Your task to perform on an android device: Open display settings Image 0: 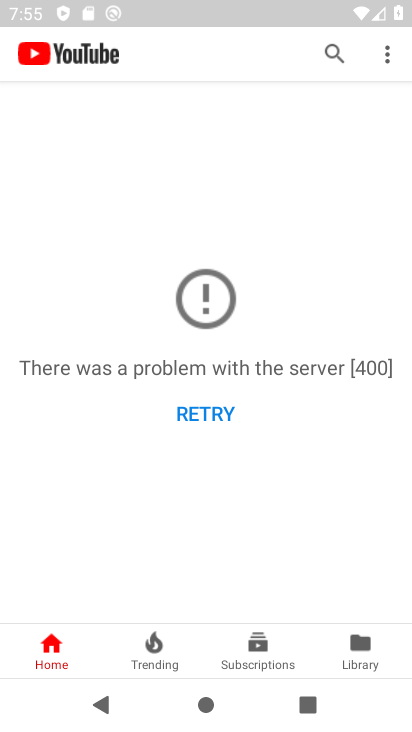
Step 0: press back button
Your task to perform on an android device: Open display settings Image 1: 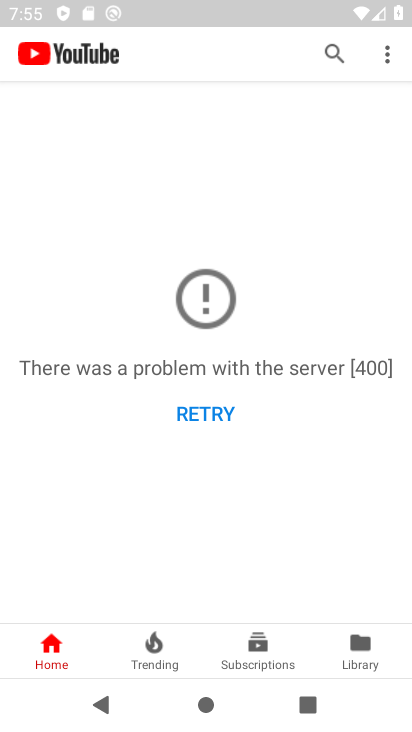
Step 1: press back button
Your task to perform on an android device: Open display settings Image 2: 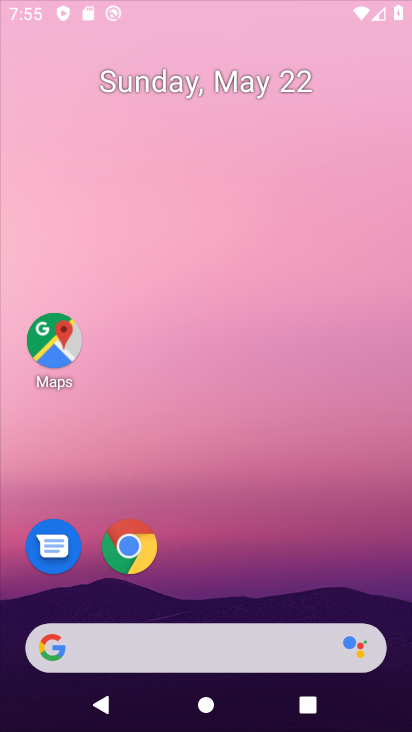
Step 2: press back button
Your task to perform on an android device: Open display settings Image 3: 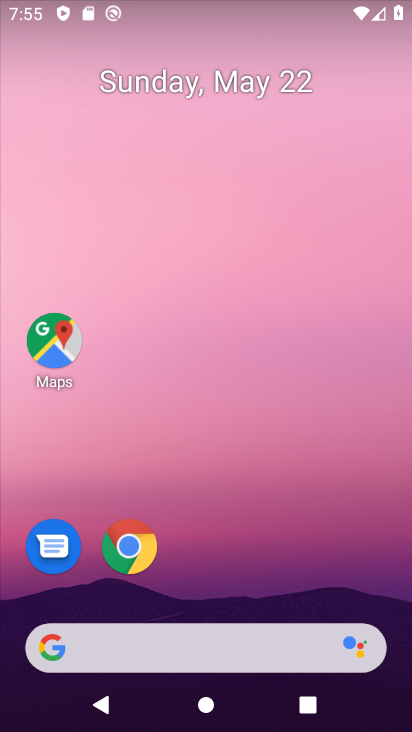
Step 3: drag from (239, 522) to (120, 10)
Your task to perform on an android device: Open display settings Image 4: 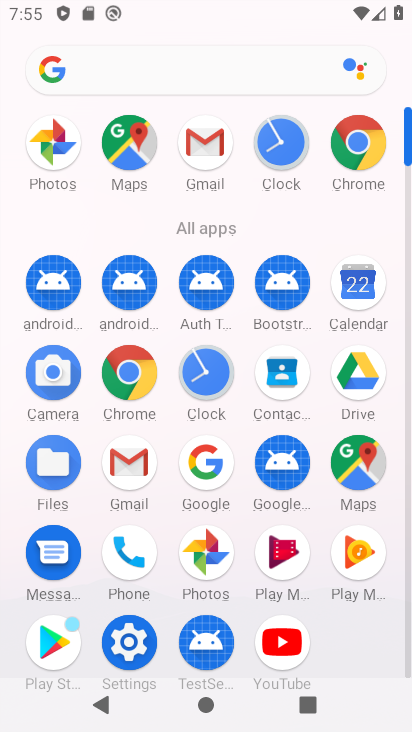
Step 4: click (126, 657)
Your task to perform on an android device: Open display settings Image 5: 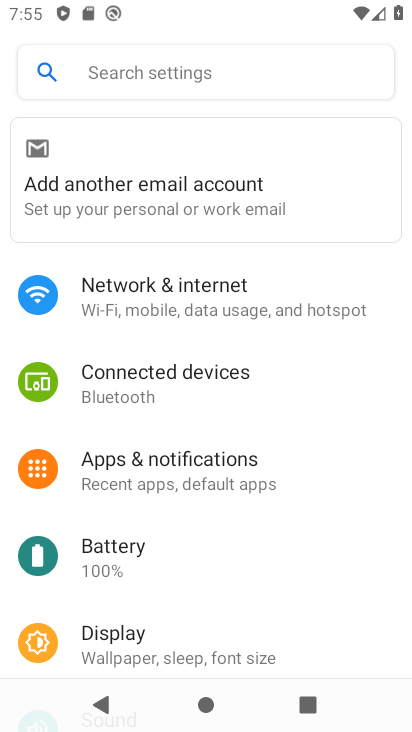
Step 5: drag from (128, 533) to (137, 254)
Your task to perform on an android device: Open display settings Image 6: 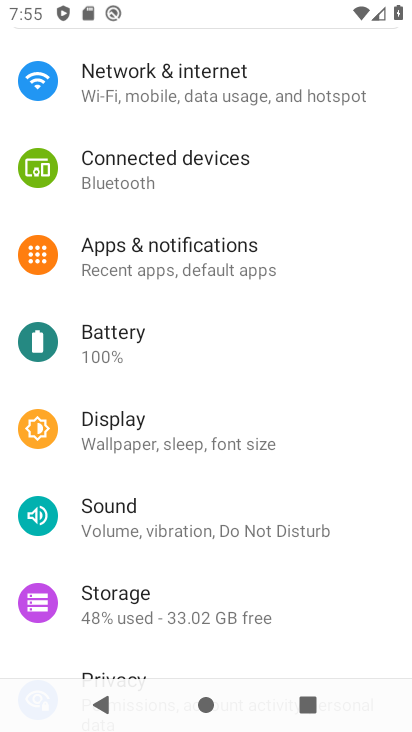
Step 6: drag from (171, 475) to (168, 310)
Your task to perform on an android device: Open display settings Image 7: 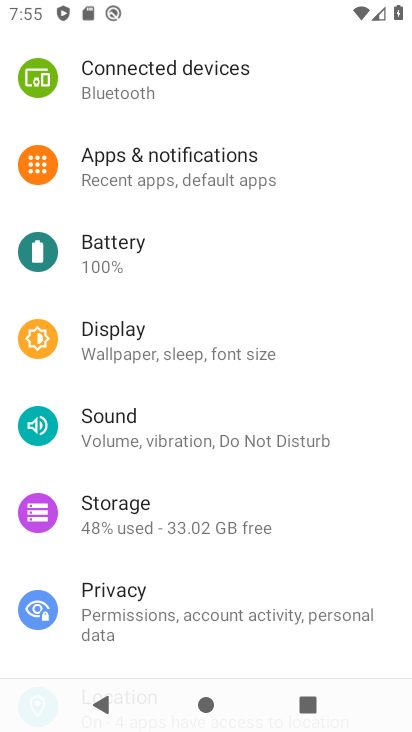
Step 7: click (127, 352)
Your task to perform on an android device: Open display settings Image 8: 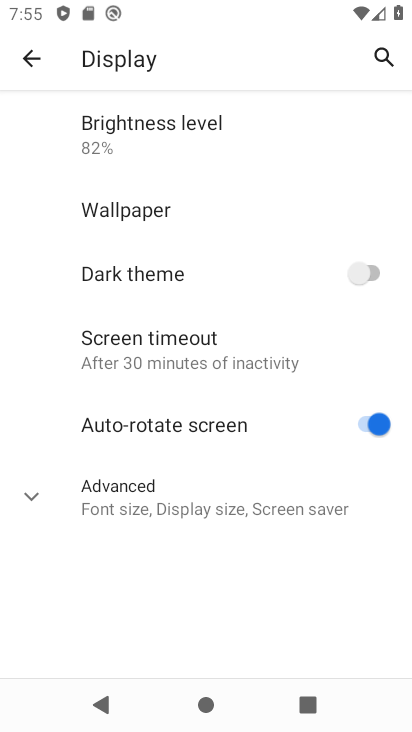
Step 8: task complete